Your task to perform on an android device: When is my next meeting? Image 0: 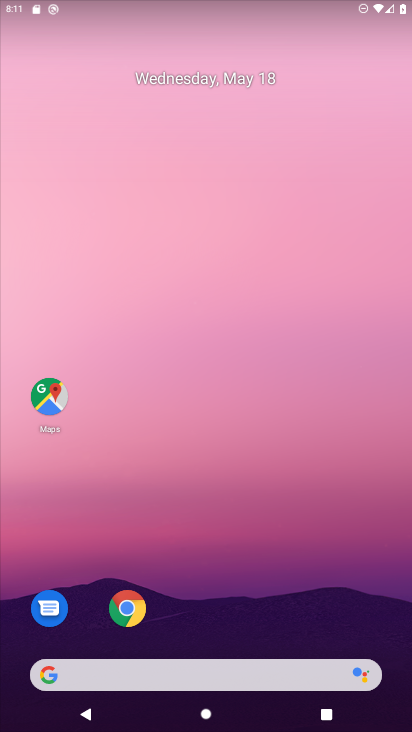
Step 0: drag from (322, 632) to (332, 76)
Your task to perform on an android device: When is my next meeting? Image 1: 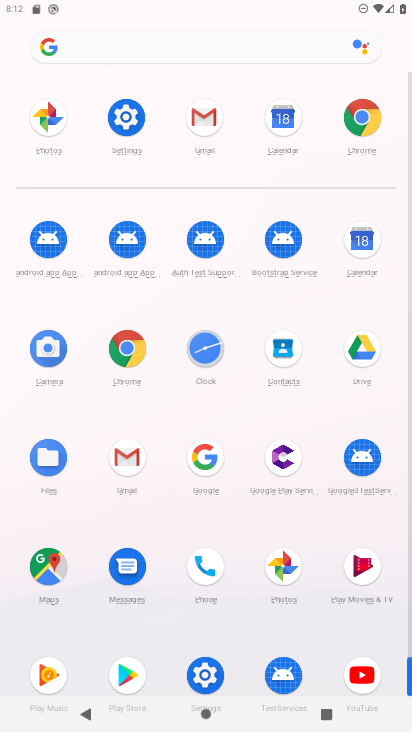
Step 1: click (362, 248)
Your task to perform on an android device: When is my next meeting? Image 2: 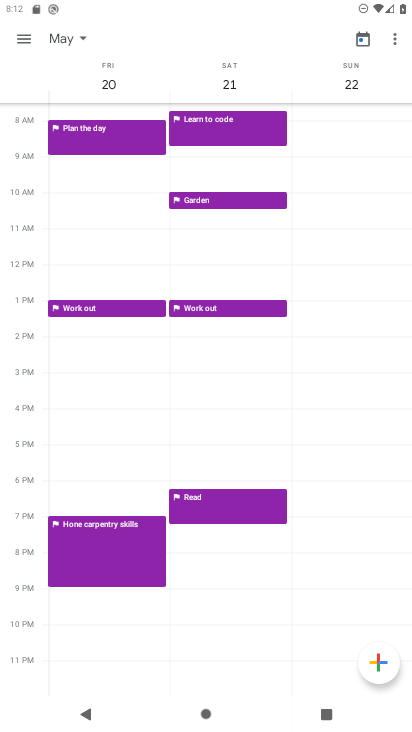
Step 2: click (31, 35)
Your task to perform on an android device: When is my next meeting? Image 3: 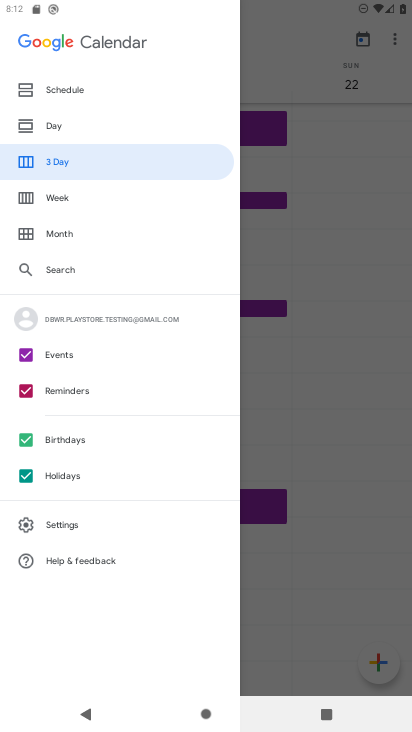
Step 3: click (65, 91)
Your task to perform on an android device: When is my next meeting? Image 4: 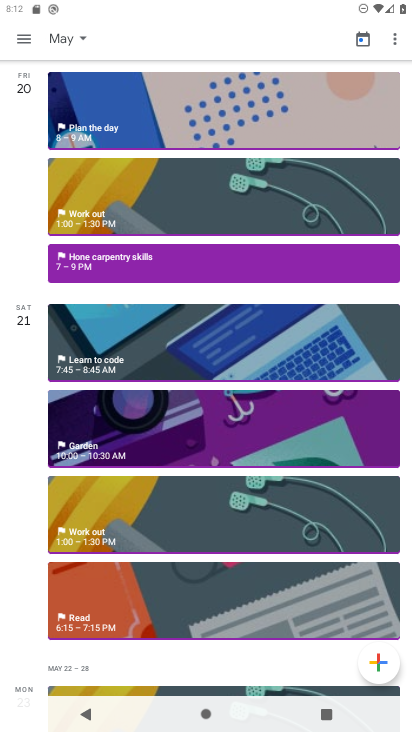
Step 4: drag from (250, 170) to (245, 660)
Your task to perform on an android device: When is my next meeting? Image 5: 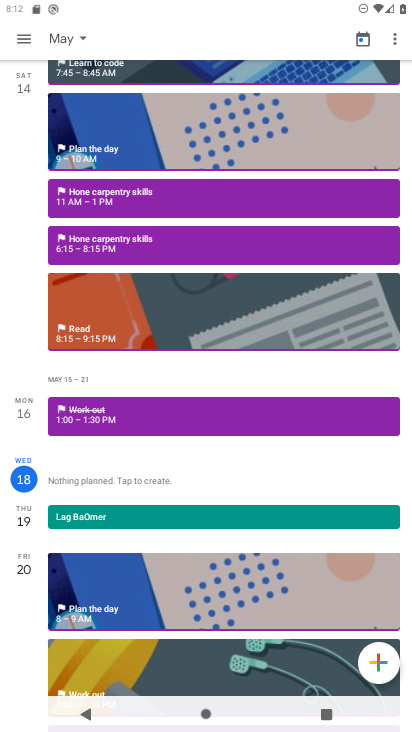
Step 5: drag from (236, 605) to (217, 256)
Your task to perform on an android device: When is my next meeting? Image 6: 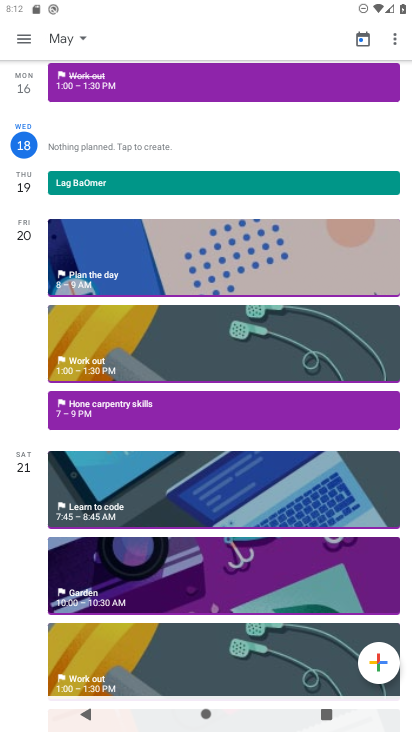
Step 6: click (94, 183)
Your task to perform on an android device: When is my next meeting? Image 7: 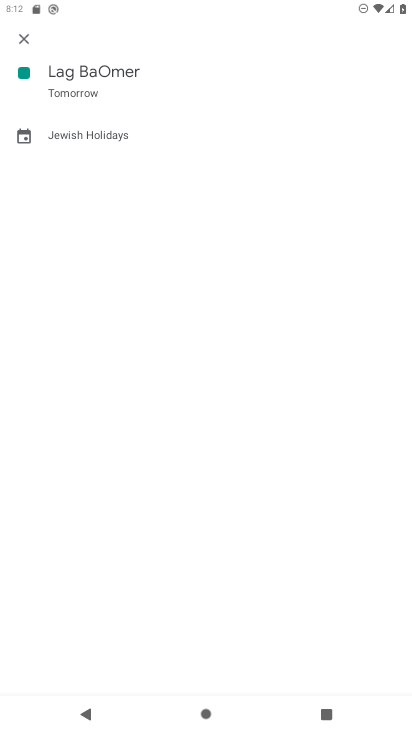
Step 7: click (30, 45)
Your task to perform on an android device: When is my next meeting? Image 8: 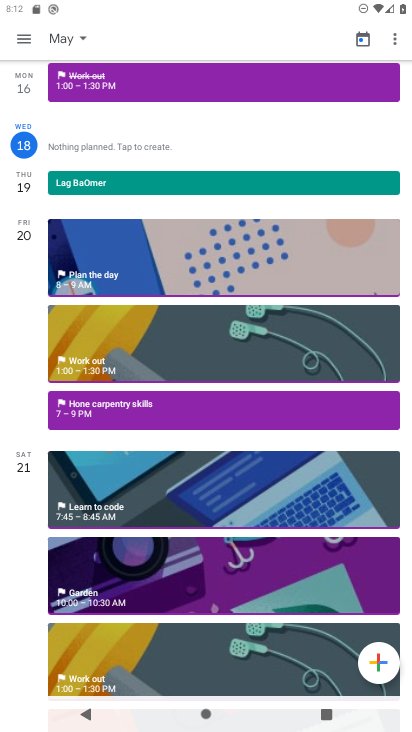
Step 8: click (26, 45)
Your task to perform on an android device: When is my next meeting? Image 9: 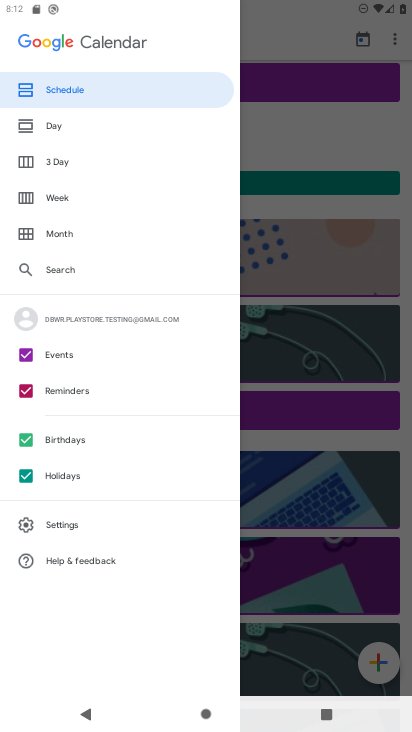
Step 9: click (30, 354)
Your task to perform on an android device: When is my next meeting? Image 10: 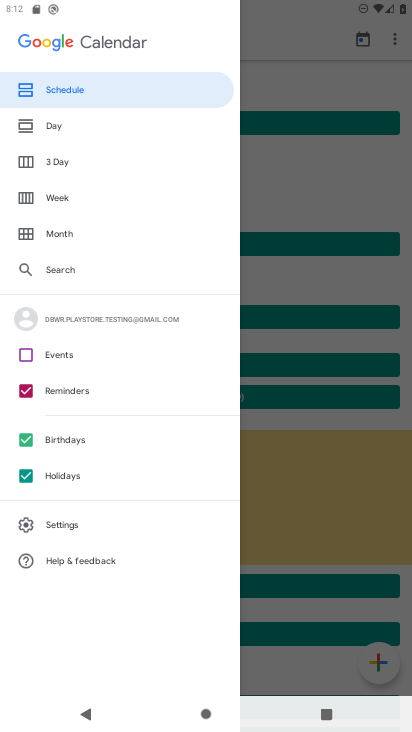
Step 10: click (27, 443)
Your task to perform on an android device: When is my next meeting? Image 11: 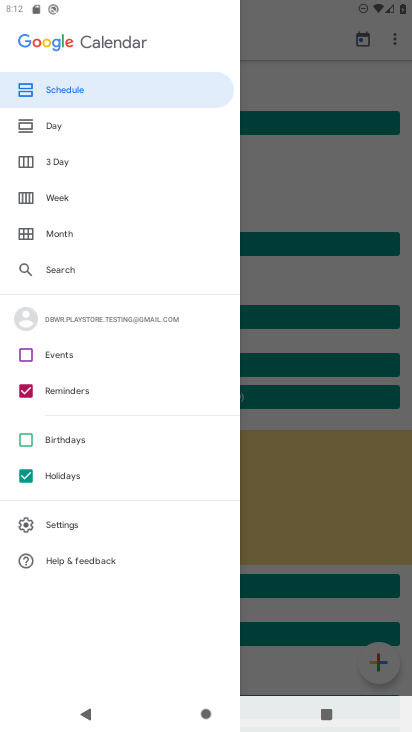
Step 11: click (26, 477)
Your task to perform on an android device: When is my next meeting? Image 12: 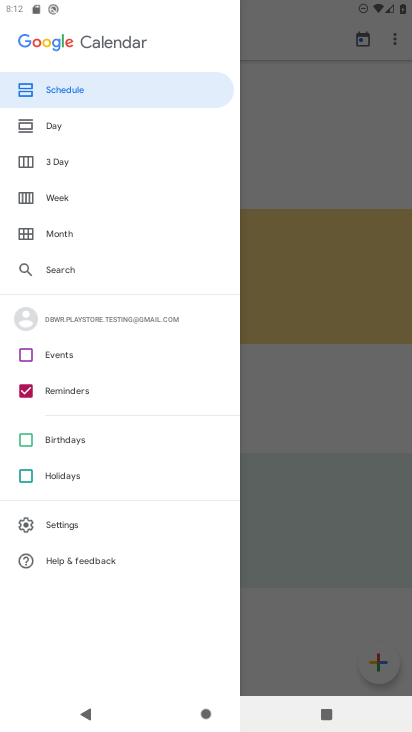
Step 12: drag from (325, 414) to (14, 359)
Your task to perform on an android device: When is my next meeting? Image 13: 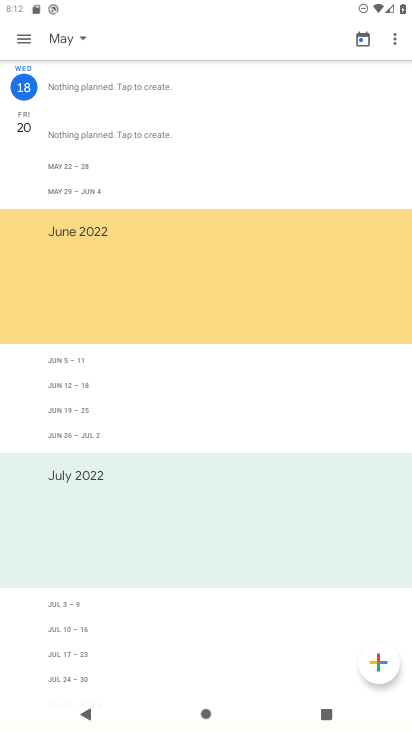
Step 13: drag from (199, 570) to (197, 208)
Your task to perform on an android device: When is my next meeting? Image 14: 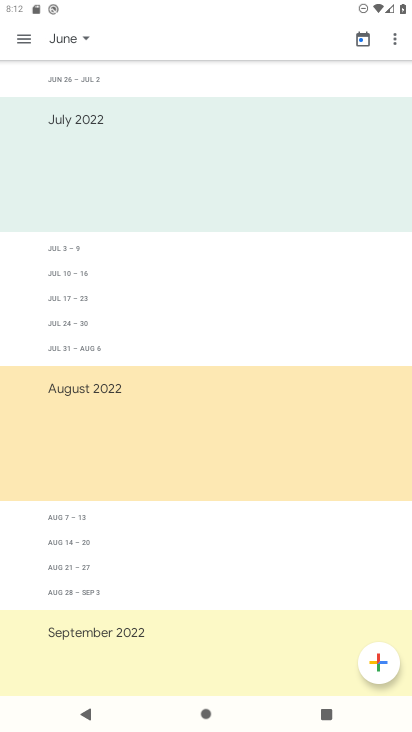
Step 14: drag from (190, 639) to (185, 79)
Your task to perform on an android device: When is my next meeting? Image 15: 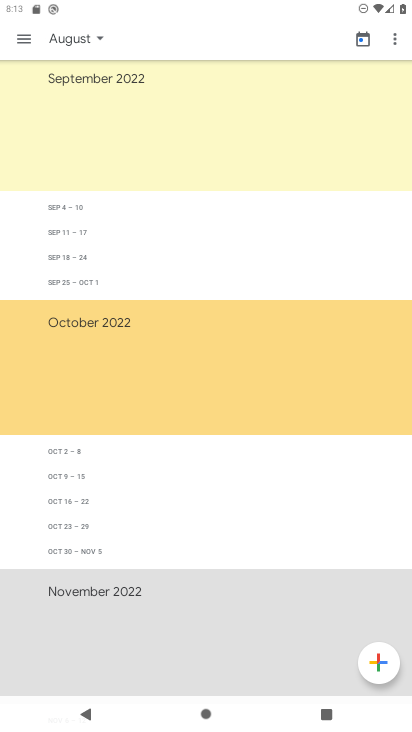
Step 15: drag from (188, 672) to (213, 197)
Your task to perform on an android device: When is my next meeting? Image 16: 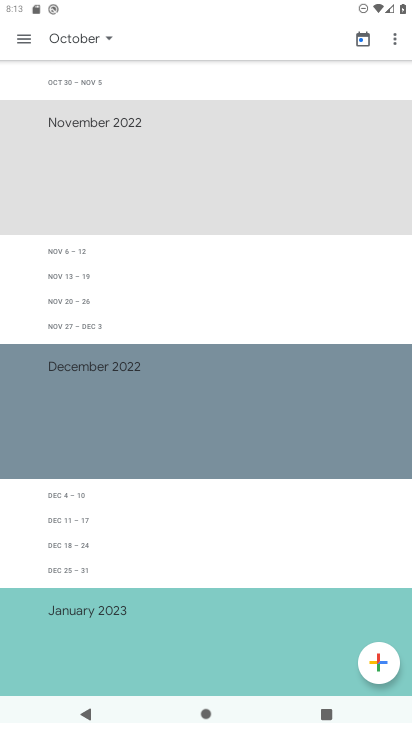
Step 16: drag from (195, 658) to (128, 711)
Your task to perform on an android device: When is my next meeting? Image 17: 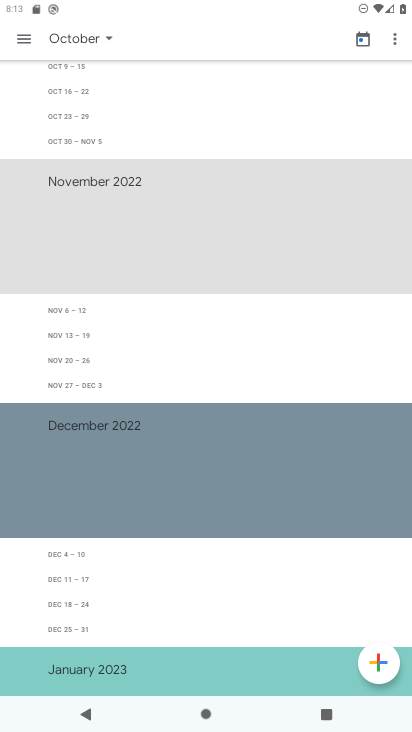
Step 17: drag from (121, 156) to (69, 678)
Your task to perform on an android device: When is my next meeting? Image 18: 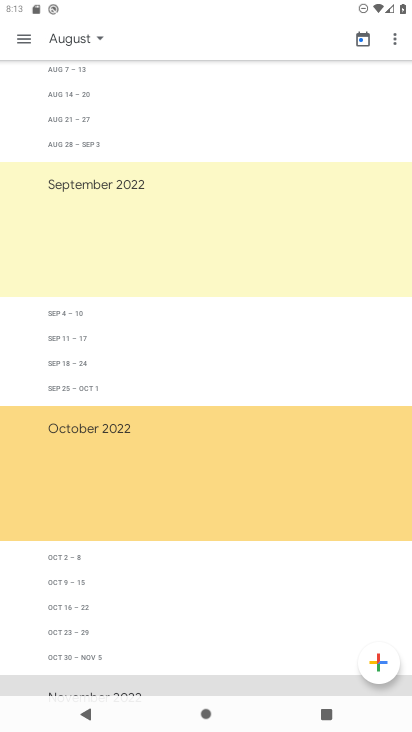
Step 18: drag from (127, 141) to (106, 728)
Your task to perform on an android device: When is my next meeting? Image 19: 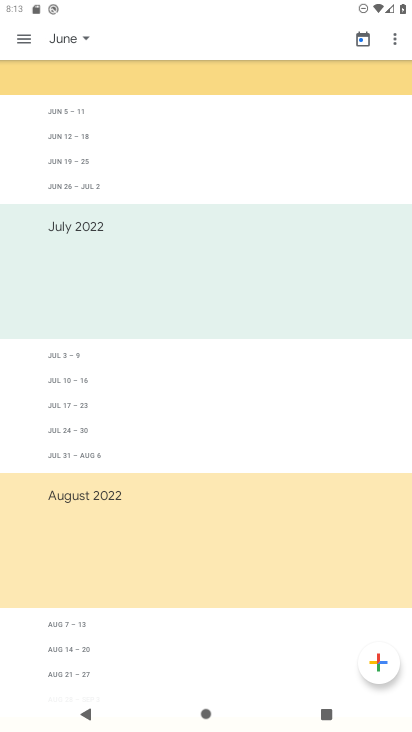
Step 19: drag from (131, 130) to (113, 643)
Your task to perform on an android device: When is my next meeting? Image 20: 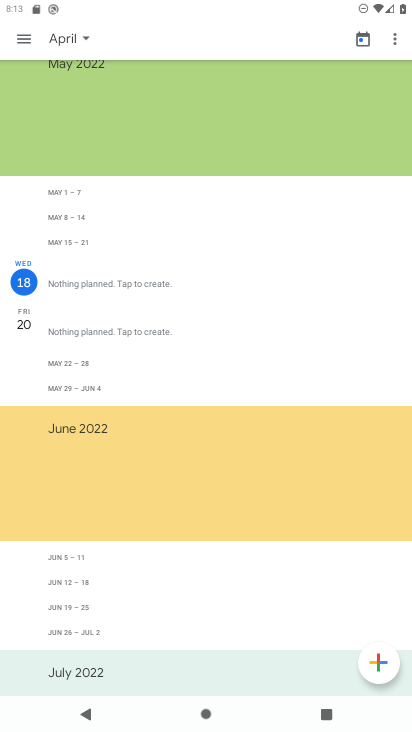
Step 20: click (21, 27)
Your task to perform on an android device: When is my next meeting? Image 21: 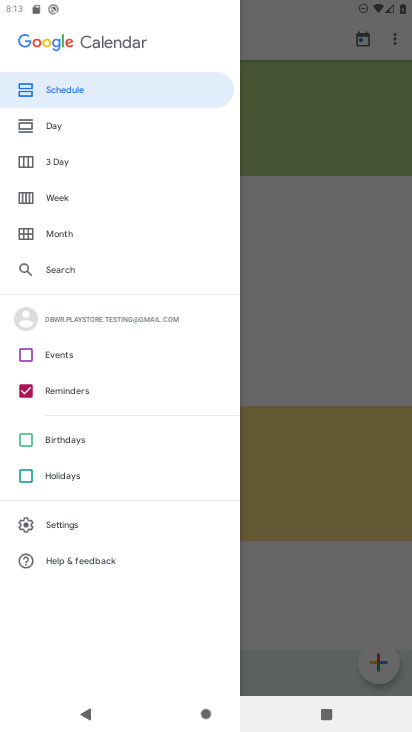
Step 21: click (50, 355)
Your task to perform on an android device: When is my next meeting? Image 22: 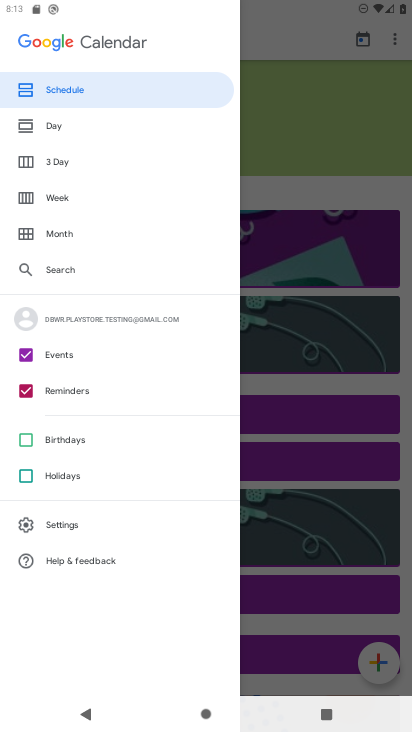
Step 22: click (299, 338)
Your task to perform on an android device: When is my next meeting? Image 23: 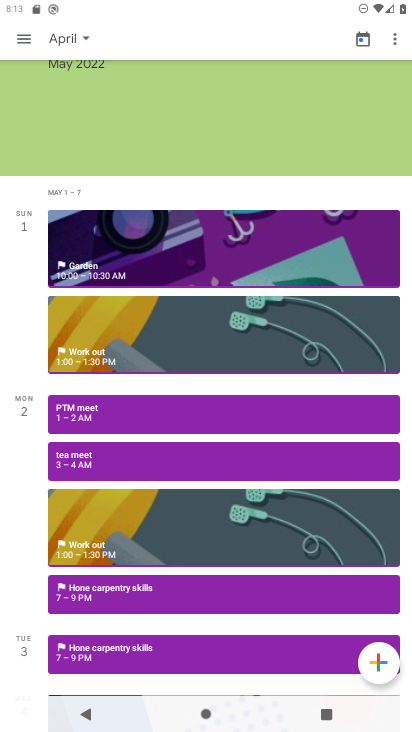
Step 23: click (101, 411)
Your task to perform on an android device: When is my next meeting? Image 24: 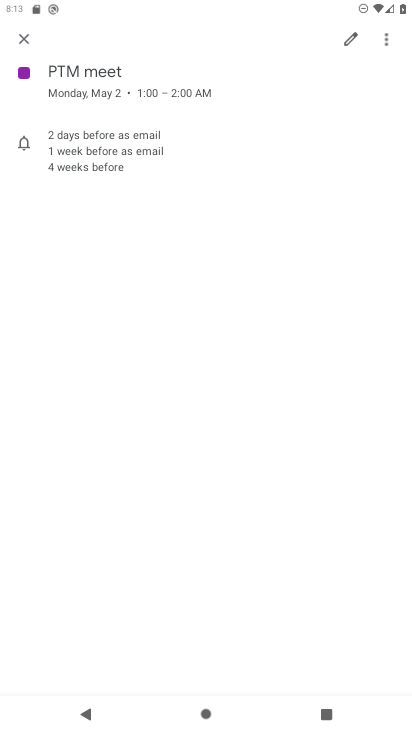
Step 24: task complete